Your task to perform on an android device: What is the recent news? Image 0: 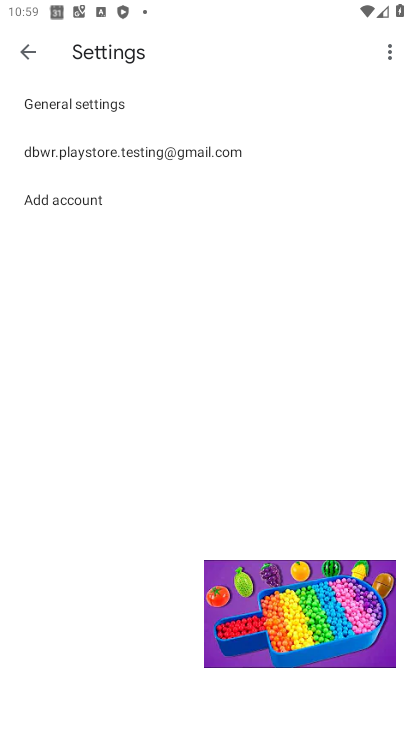
Step 0: press home button
Your task to perform on an android device: What is the recent news? Image 1: 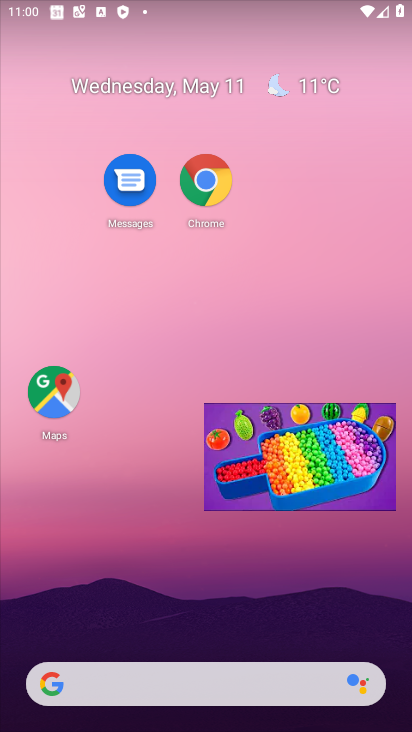
Step 1: drag from (136, 592) to (174, 195)
Your task to perform on an android device: What is the recent news? Image 2: 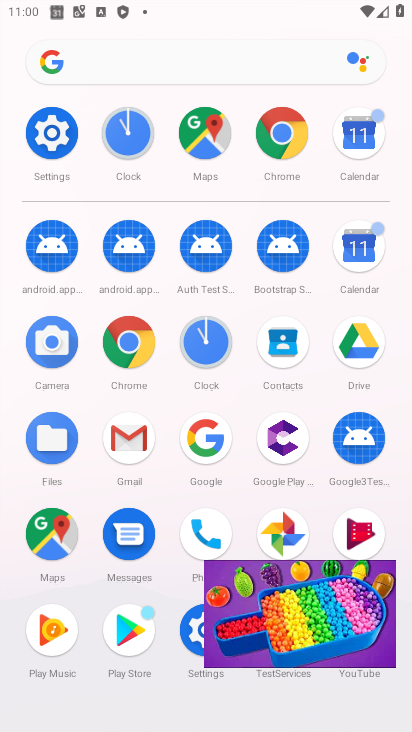
Step 2: click (320, 616)
Your task to perform on an android device: What is the recent news? Image 3: 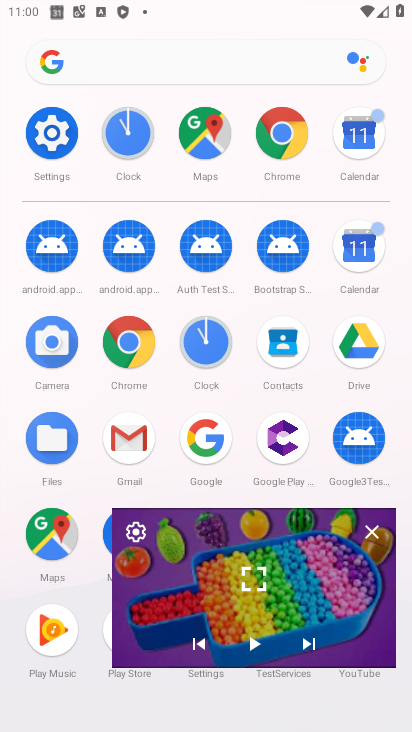
Step 3: click (366, 532)
Your task to perform on an android device: What is the recent news? Image 4: 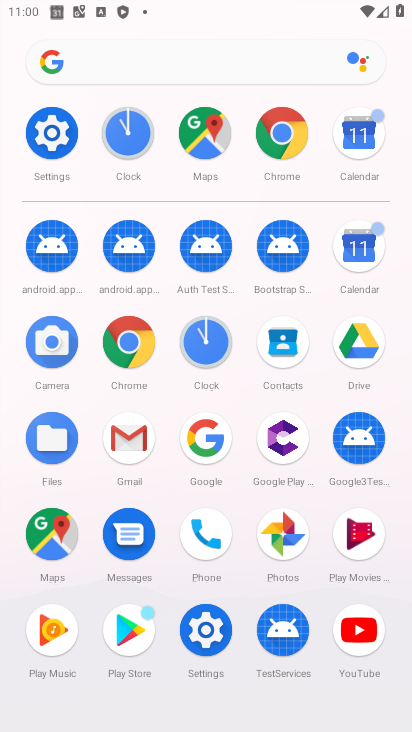
Step 4: click (194, 440)
Your task to perform on an android device: What is the recent news? Image 5: 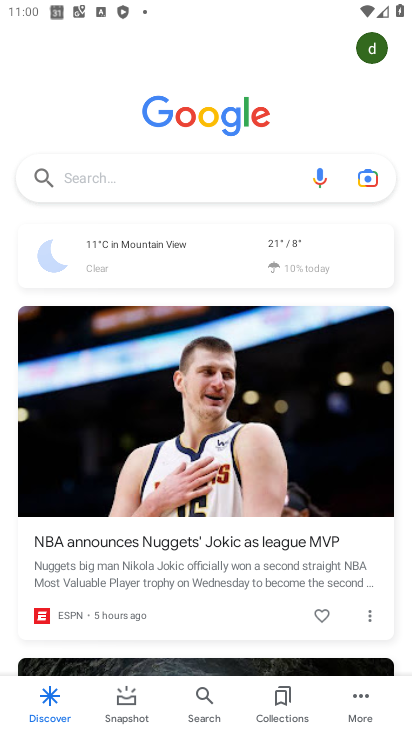
Step 5: task complete